Your task to perform on an android device: Open Youtube and go to the subscriptions tab Image 0: 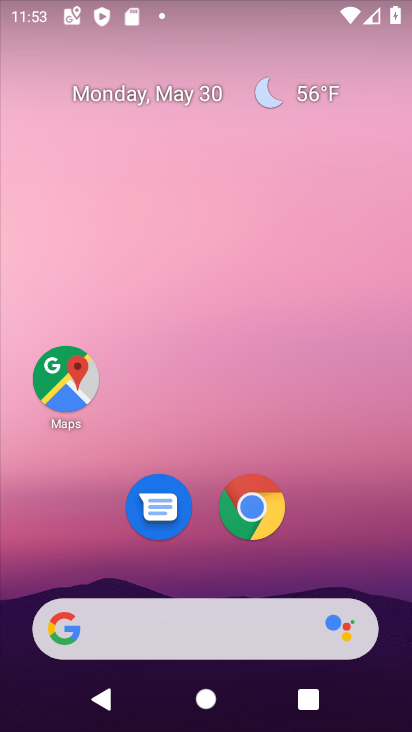
Step 0: press home button
Your task to perform on an android device: Open Youtube and go to the subscriptions tab Image 1: 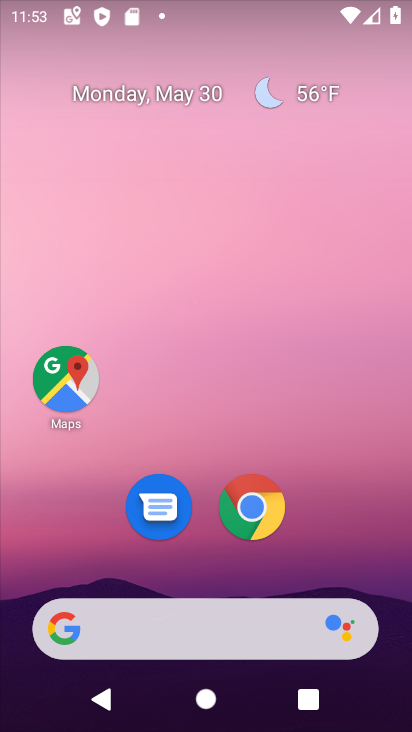
Step 1: press home button
Your task to perform on an android device: Open Youtube and go to the subscriptions tab Image 2: 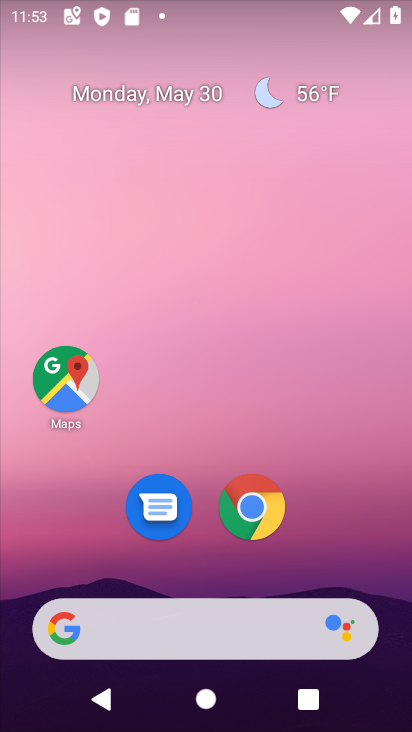
Step 2: drag from (374, 557) to (361, 197)
Your task to perform on an android device: Open Youtube and go to the subscriptions tab Image 3: 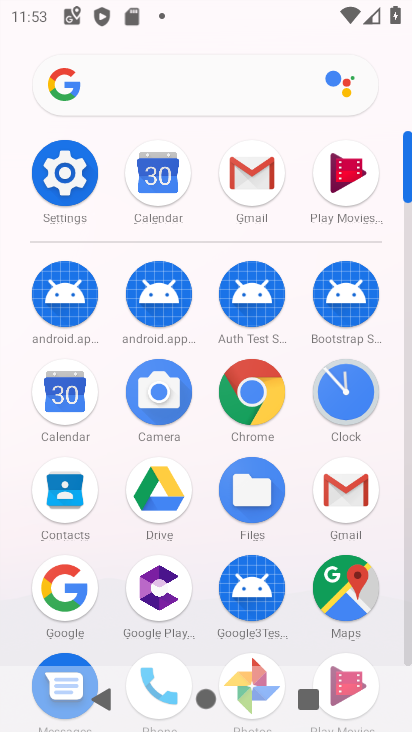
Step 3: drag from (189, 644) to (268, 247)
Your task to perform on an android device: Open Youtube and go to the subscriptions tab Image 4: 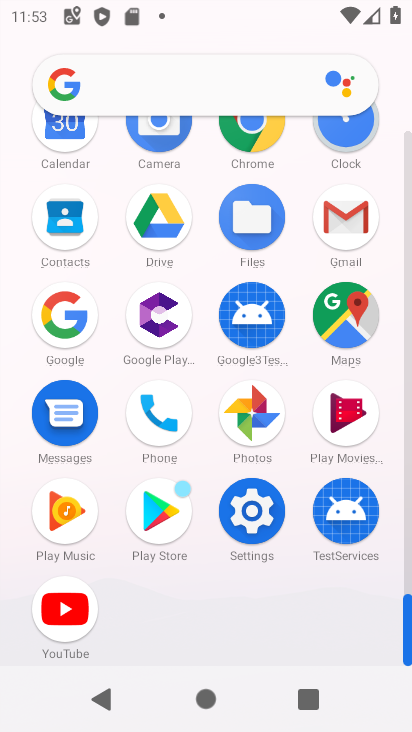
Step 4: click (49, 621)
Your task to perform on an android device: Open Youtube and go to the subscriptions tab Image 5: 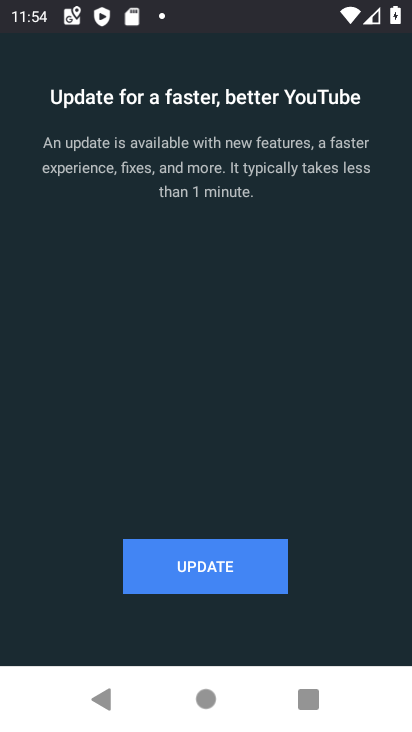
Step 5: click (202, 566)
Your task to perform on an android device: Open Youtube and go to the subscriptions tab Image 6: 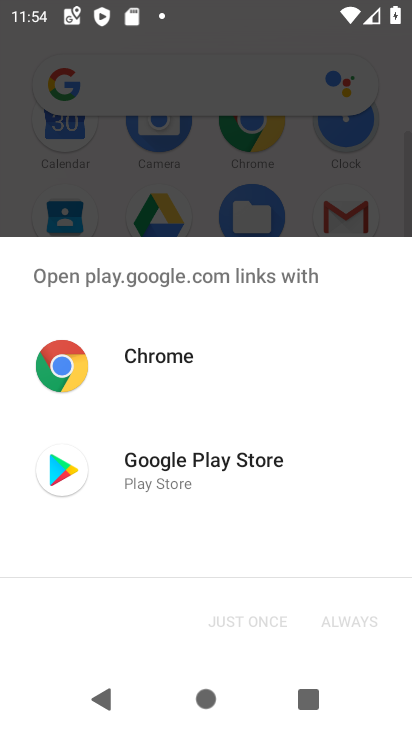
Step 6: click (157, 462)
Your task to perform on an android device: Open Youtube and go to the subscriptions tab Image 7: 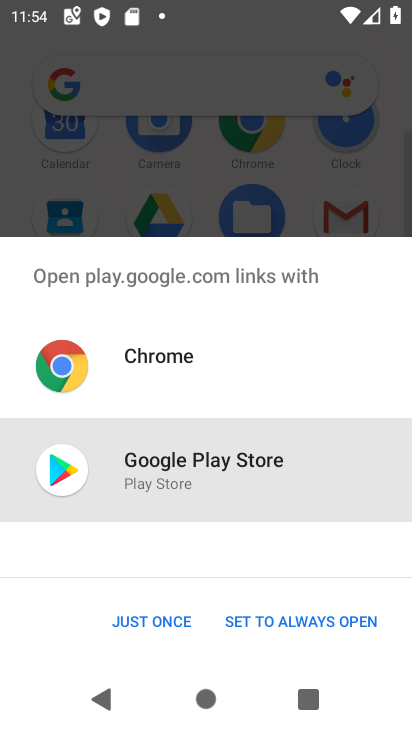
Step 7: click (146, 618)
Your task to perform on an android device: Open Youtube and go to the subscriptions tab Image 8: 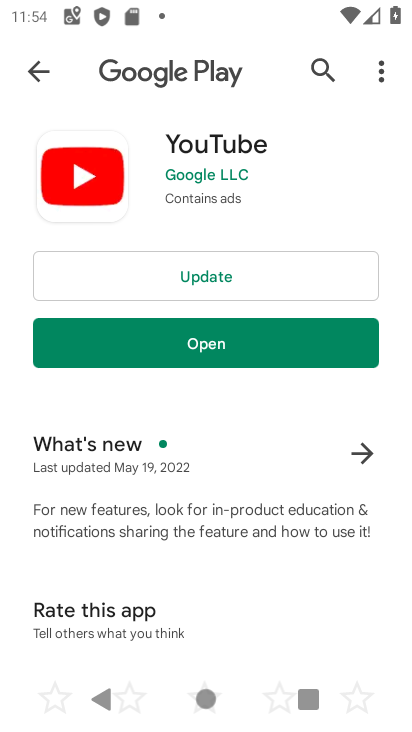
Step 8: click (224, 273)
Your task to perform on an android device: Open Youtube and go to the subscriptions tab Image 9: 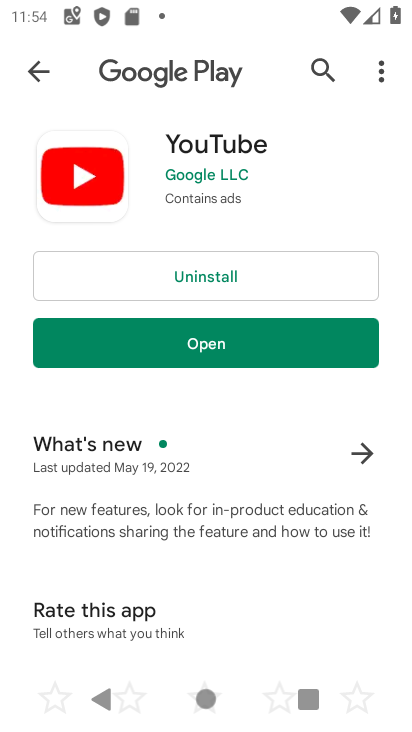
Step 9: click (228, 352)
Your task to perform on an android device: Open Youtube and go to the subscriptions tab Image 10: 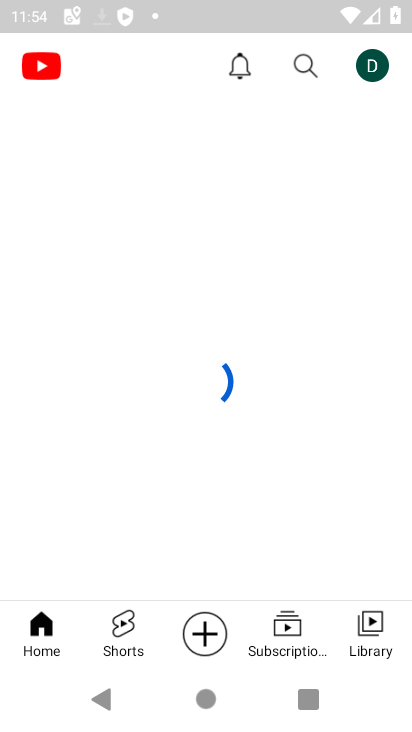
Step 10: click (264, 626)
Your task to perform on an android device: Open Youtube and go to the subscriptions tab Image 11: 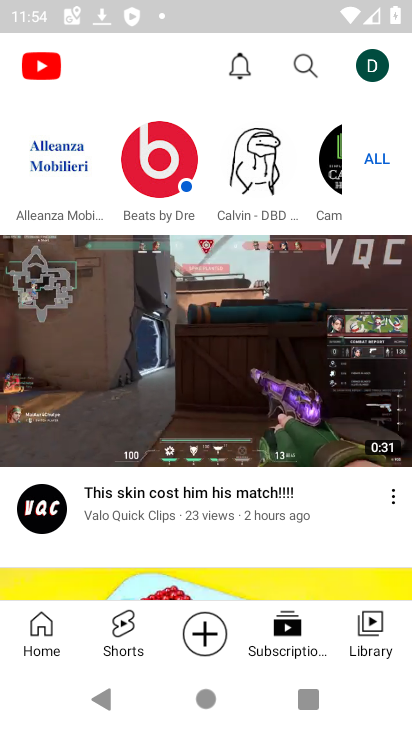
Step 11: click (293, 624)
Your task to perform on an android device: Open Youtube and go to the subscriptions tab Image 12: 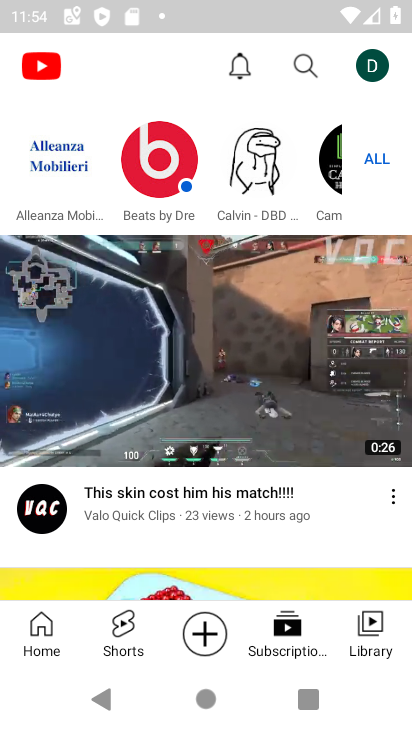
Step 12: task complete